Your task to perform on an android device: Go to Yahoo.com Image 0: 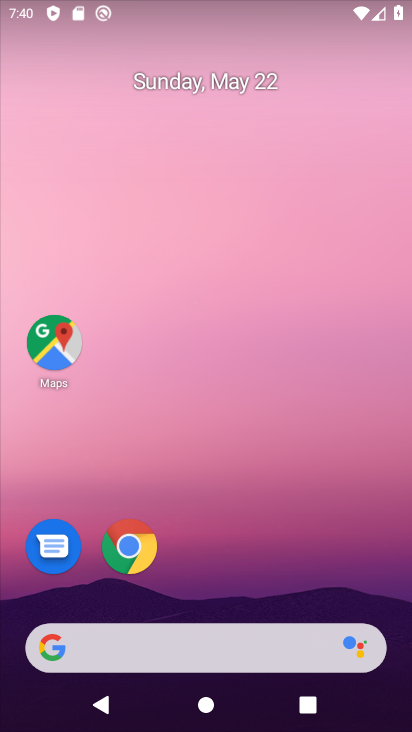
Step 0: press home button
Your task to perform on an android device: Go to Yahoo.com Image 1: 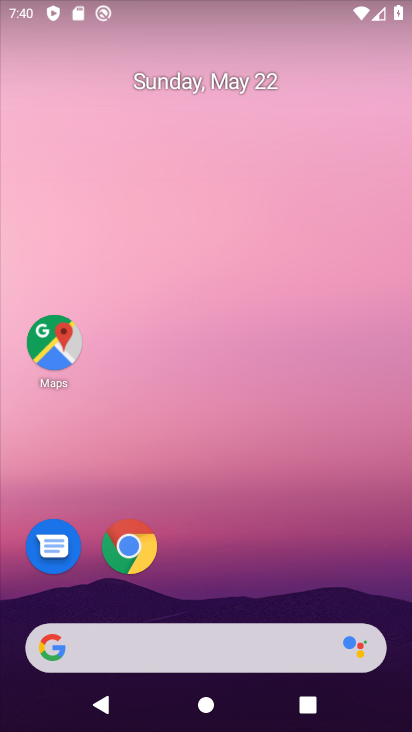
Step 1: click (137, 553)
Your task to perform on an android device: Go to Yahoo.com Image 2: 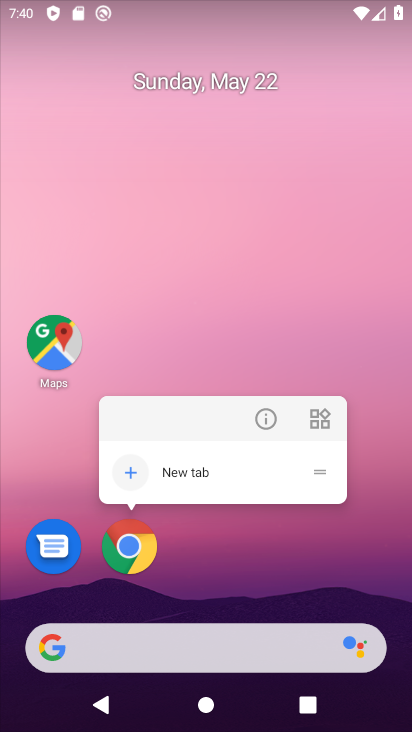
Step 2: click (128, 548)
Your task to perform on an android device: Go to Yahoo.com Image 3: 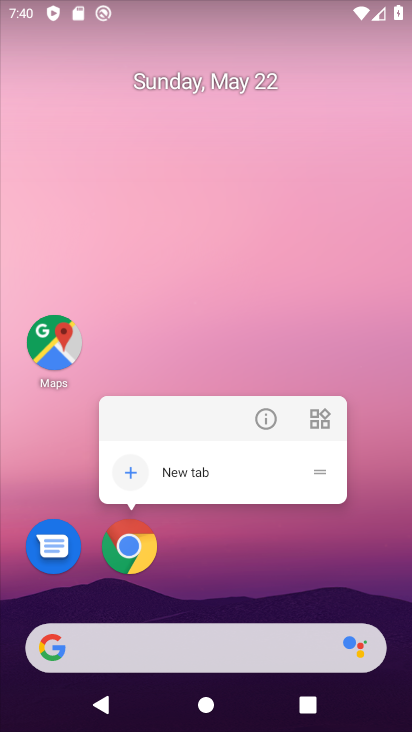
Step 3: click (126, 551)
Your task to perform on an android device: Go to Yahoo.com Image 4: 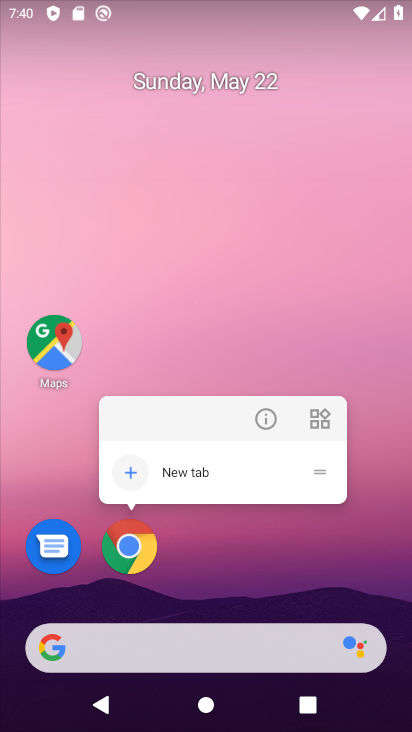
Step 4: click (124, 558)
Your task to perform on an android device: Go to Yahoo.com Image 5: 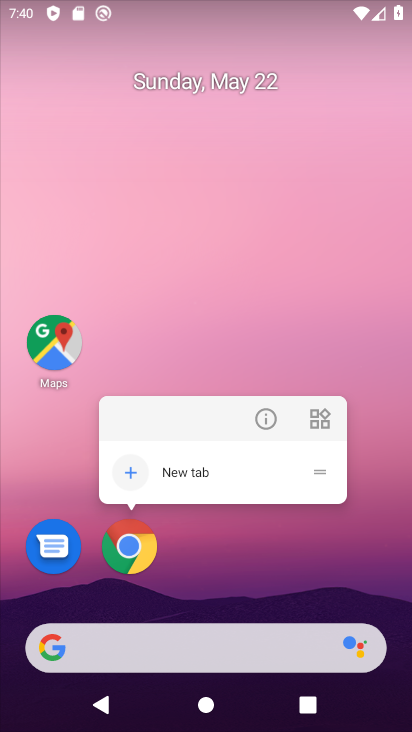
Step 5: click (138, 550)
Your task to perform on an android device: Go to Yahoo.com Image 6: 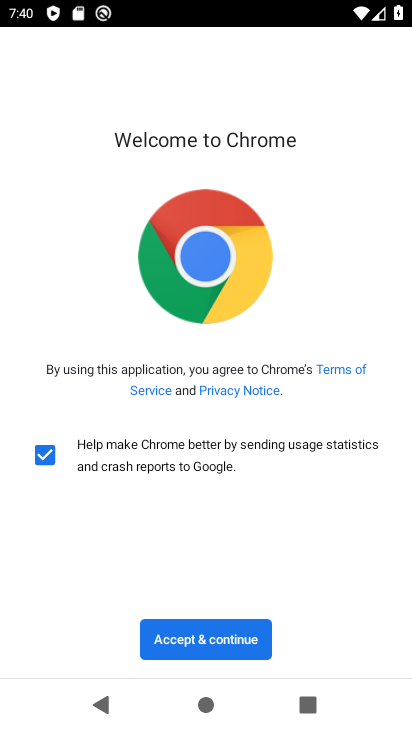
Step 6: click (172, 634)
Your task to perform on an android device: Go to Yahoo.com Image 7: 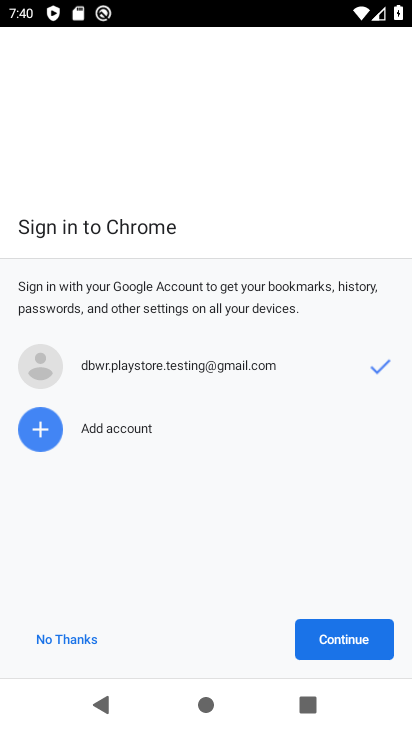
Step 7: click (337, 641)
Your task to perform on an android device: Go to Yahoo.com Image 8: 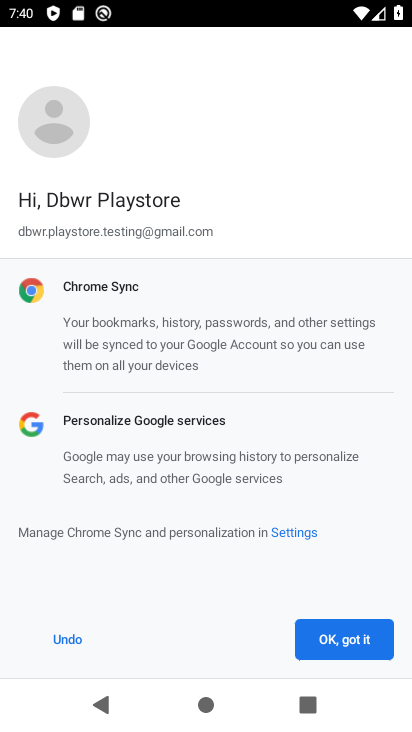
Step 8: click (337, 641)
Your task to perform on an android device: Go to Yahoo.com Image 9: 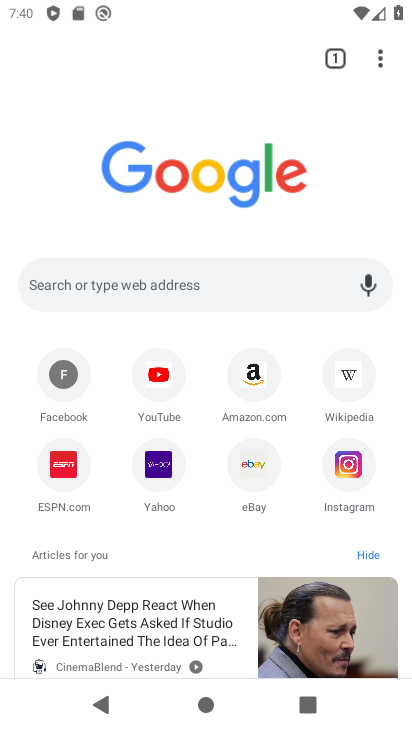
Step 9: click (157, 469)
Your task to perform on an android device: Go to Yahoo.com Image 10: 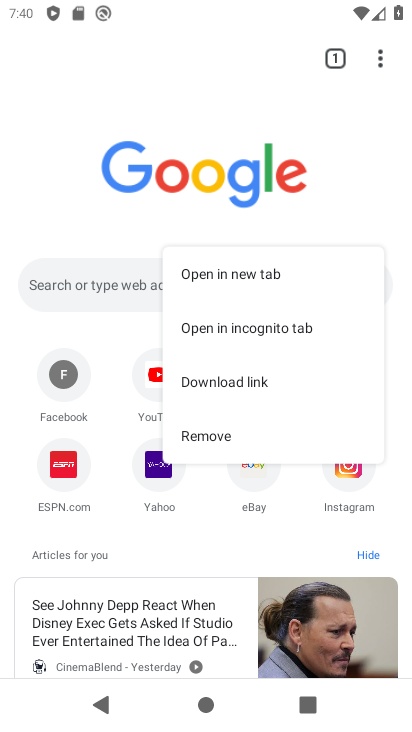
Step 10: click (148, 475)
Your task to perform on an android device: Go to Yahoo.com Image 11: 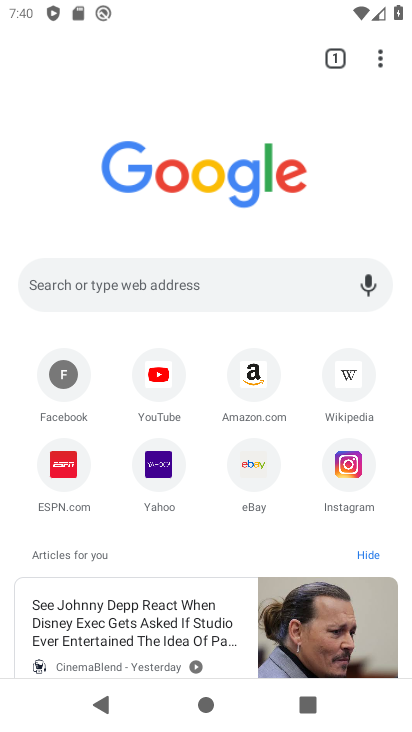
Step 11: click (161, 472)
Your task to perform on an android device: Go to Yahoo.com Image 12: 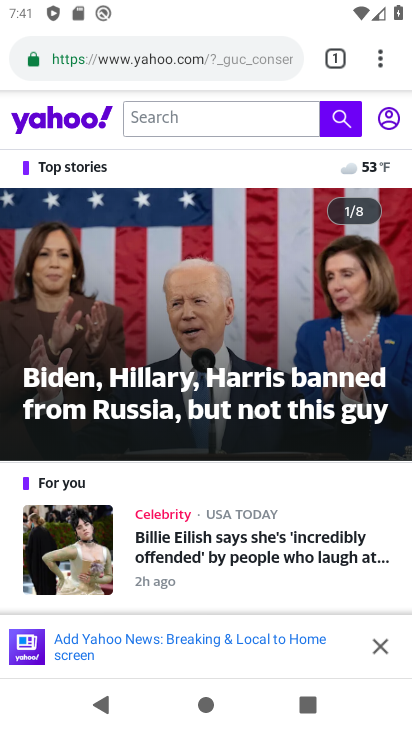
Step 12: task complete